Your task to perform on an android device: Open the stopwatch Image 0: 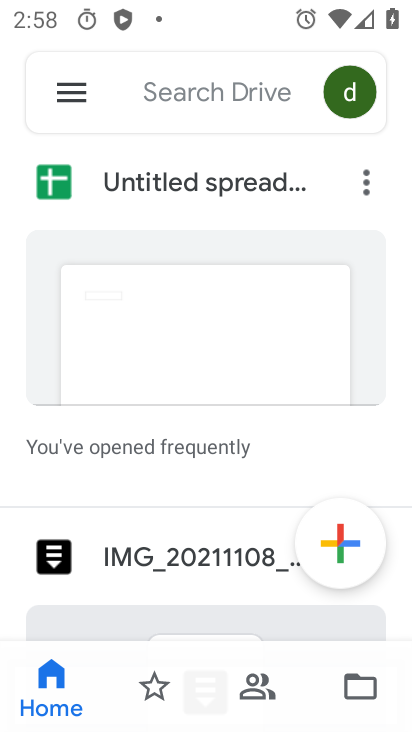
Step 0: press home button
Your task to perform on an android device: Open the stopwatch Image 1: 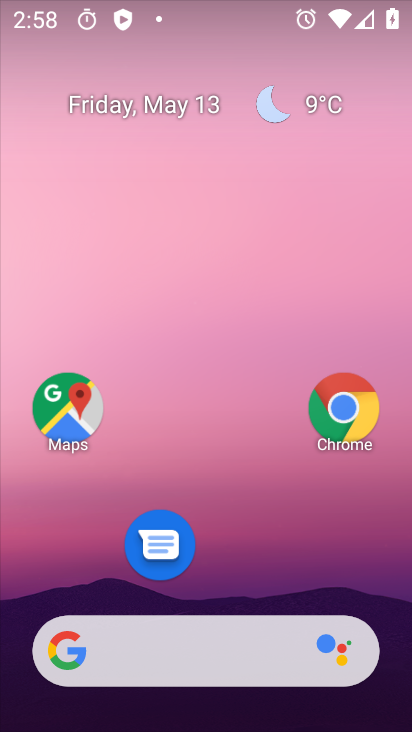
Step 1: drag from (258, 511) to (264, 119)
Your task to perform on an android device: Open the stopwatch Image 2: 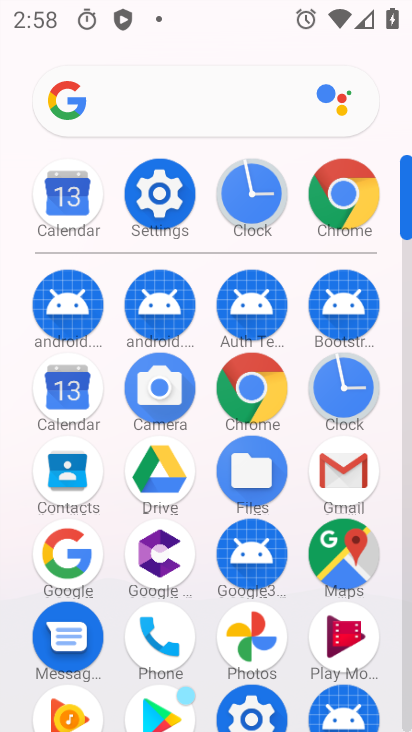
Step 2: click (165, 201)
Your task to perform on an android device: Open the stopwatch Image 3: 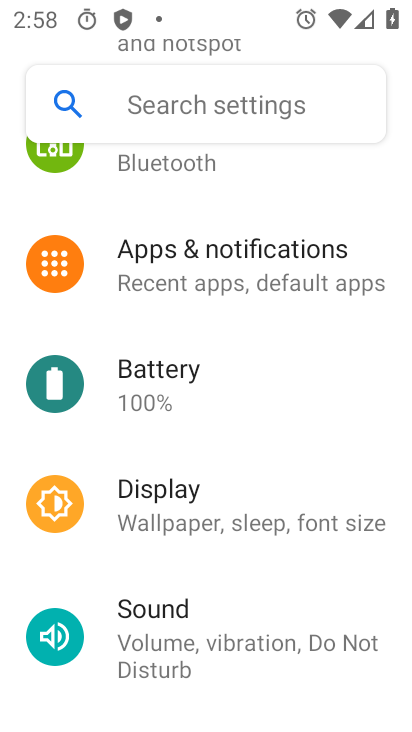
Step 3: press home button
Your task to perform on an android device: Open the stopwatch Image 4: 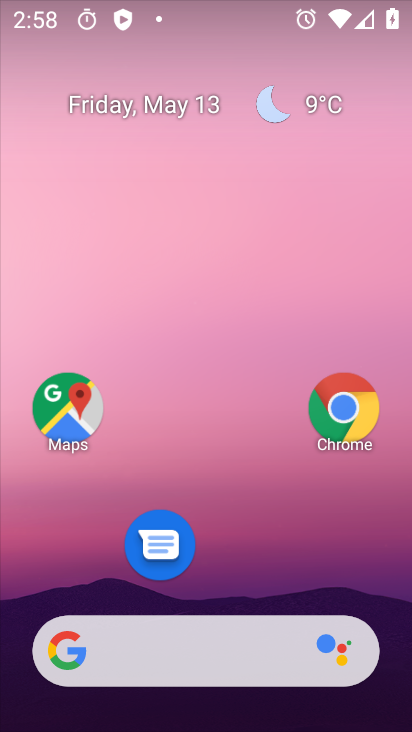
Step 4: drag from (272, 483) to (251, 136)
Your task to perform on an android device: Open the stopwatch Image 5: 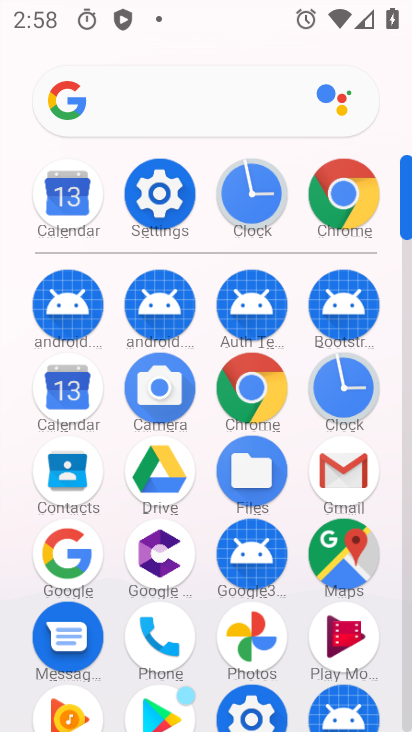
Step 5: click (334, 371)
Your task to perform on an android device: Open the stopwatch Image 6: 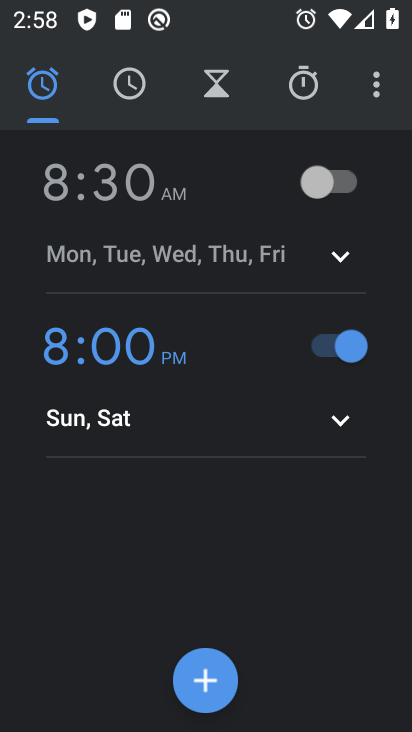
Step 6: click (313, 82)
Your task to perform on an android device: Open the stopwatch Image 7: 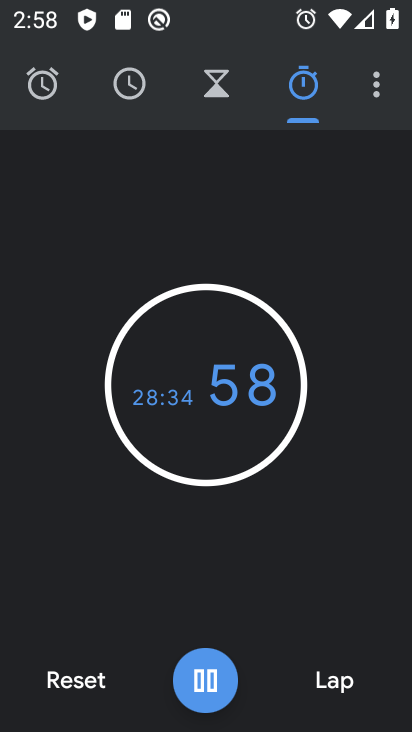
Step 7: task complete